Your task to perform on an android device: change your default location settings in chrome Image 0: 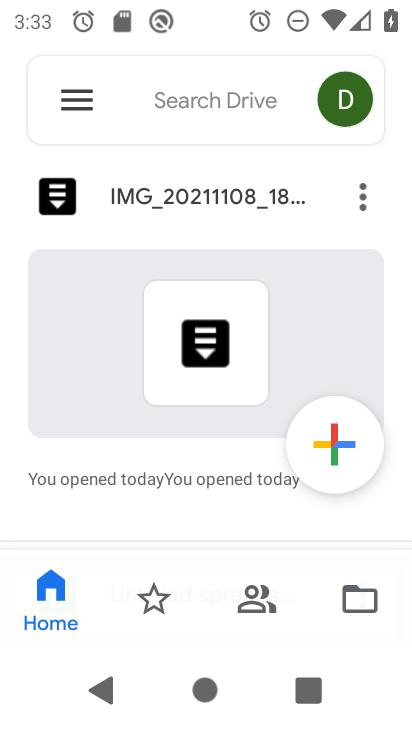
Step 0: press home button
Your task to perform on an android device: change your default location settings in chrome Image 1: 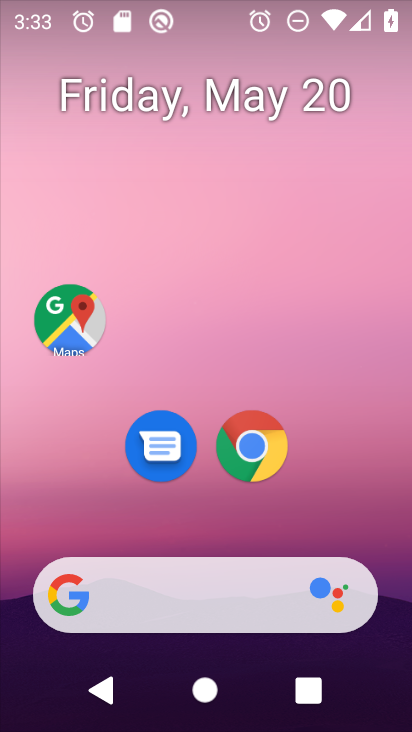
Step 1: click (261, 456)
Your task to perform on an android device: change your default location settings in chrome Image 2: 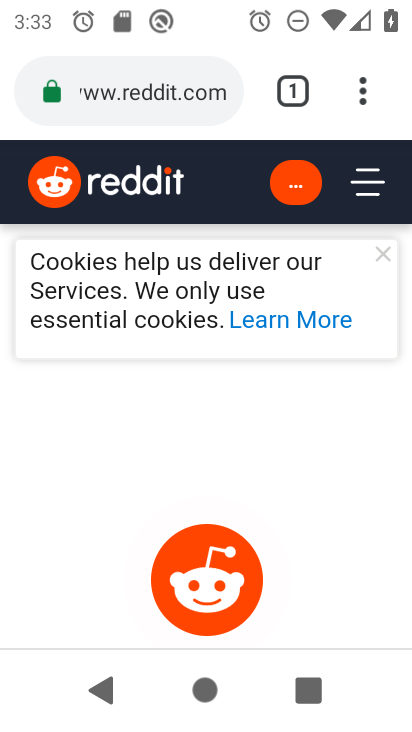
Step 2: click (366, 97)
Your task to perform on an android device: change your default location settings in chrome Image 3: 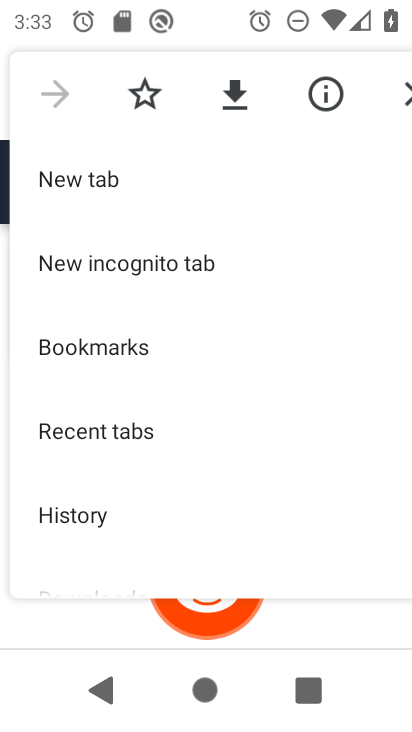
Step 3: drag from (179, 462) to (223, 107)
Your task to perform on an android device: change your default location settings in chrome Image 4: 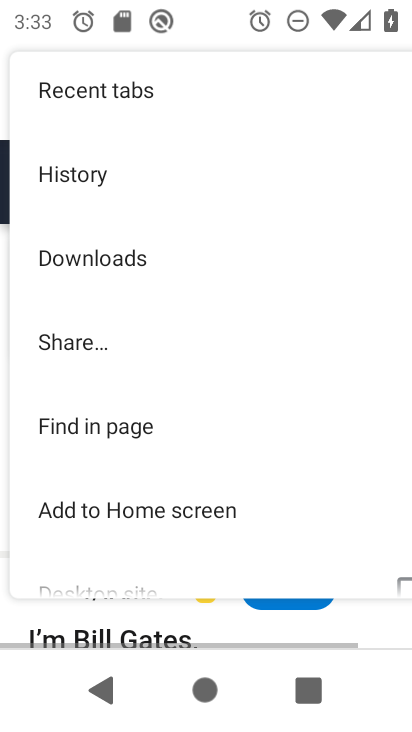
Step 4: drag from (130, 455) to (177, 105)
Your task to perform on an android device: change your default location settings in chrome Image 5: 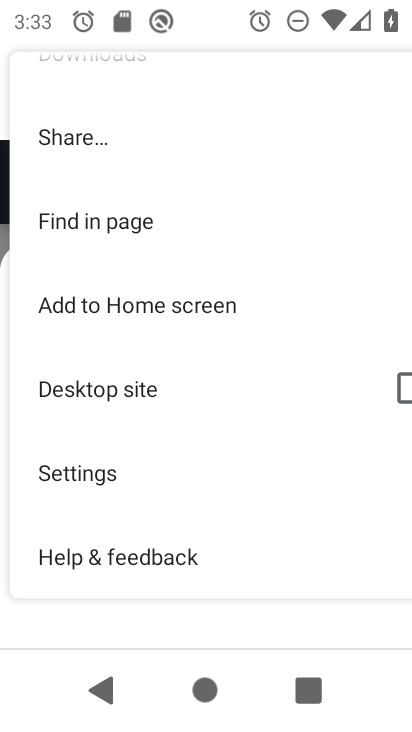
Step 5: click (85, 477)
Your task to perform on an android device: change your default location settings in chrome Image 6: 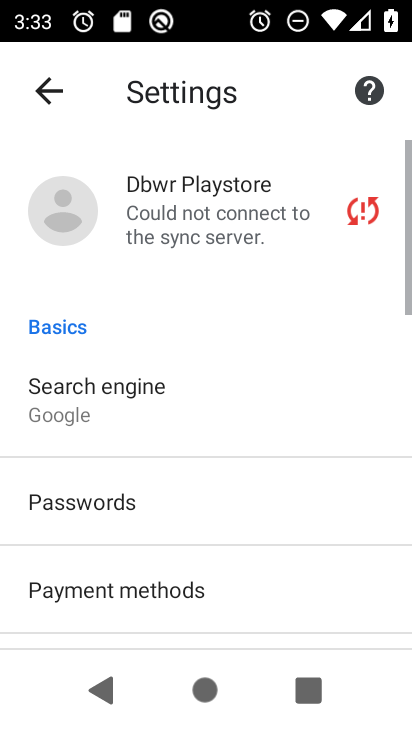
Step 6: drag from (235, 563) to (239, 148)
Your task to perform on an android device: change your default location settings in chrome Image 7: 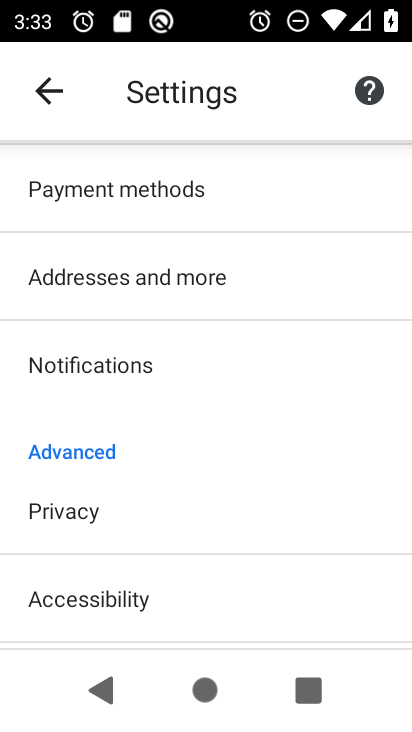
Step 7: drag from (209, 508) to (221, 161)
Your task to perform on an android device: change your default location settings in chrome Image 8: 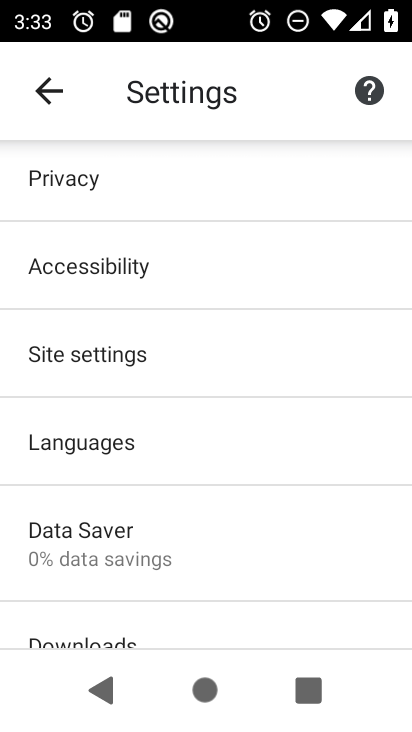
Step 8: click (104, 356)
Your task to perform on an android device: change your default location settings in chrome Image 9: 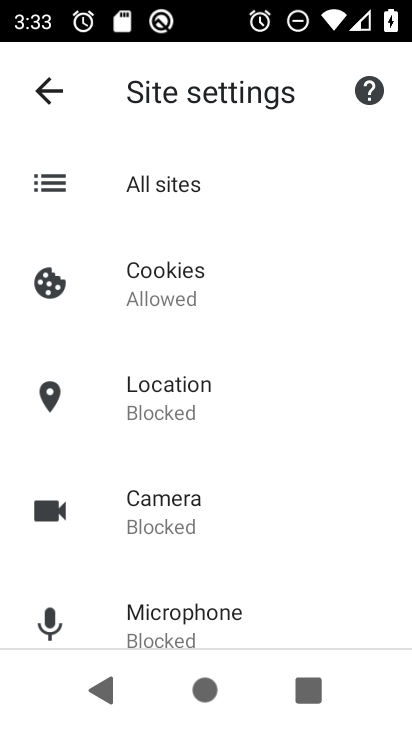
Step 9: drag from (275, 574) to (264, 247)
Your task to perform on an android device: change your default location settings in chrome Image 10: 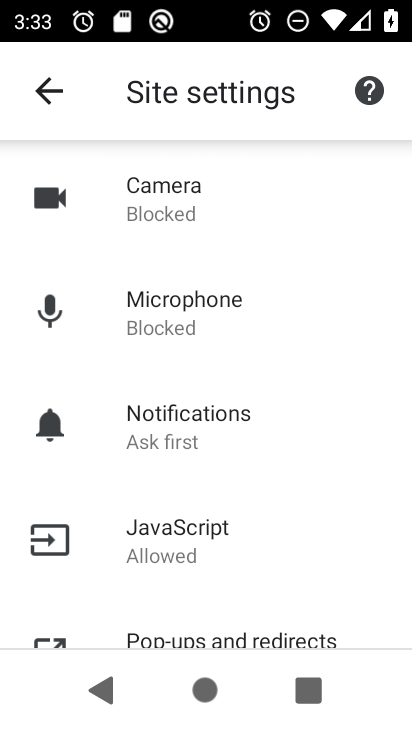
Step 10: drag from (311, 309) to (275, 594)
Your task to perform on an android device: change your default location settings in chrome Image 11: 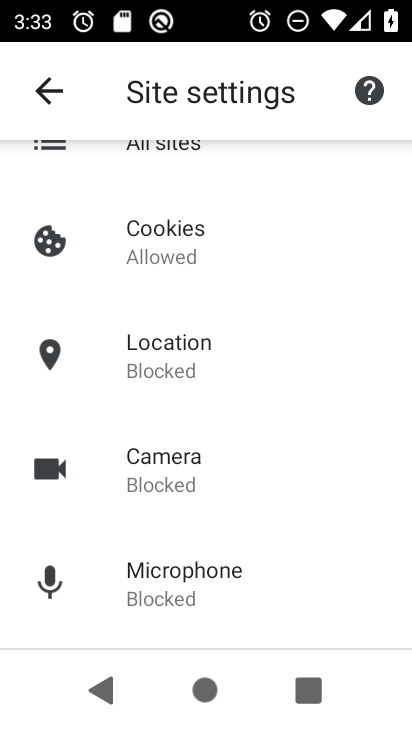
Step 11: click (170, 365)
Your task to perform on an android device: change your default location settings in chrome Image 12: 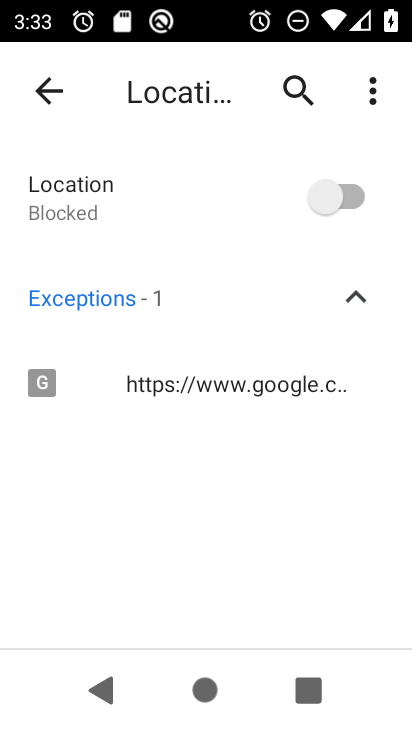
Step 12: click (345, 192)
Your task to perform on an android device: change your default location settings in chrome Image 13: 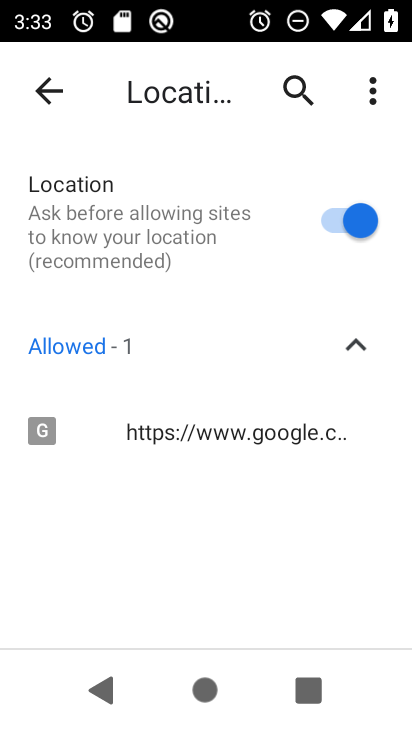
Step 13: task complete